Your task to perform on an android device: change timer sound Image 0: 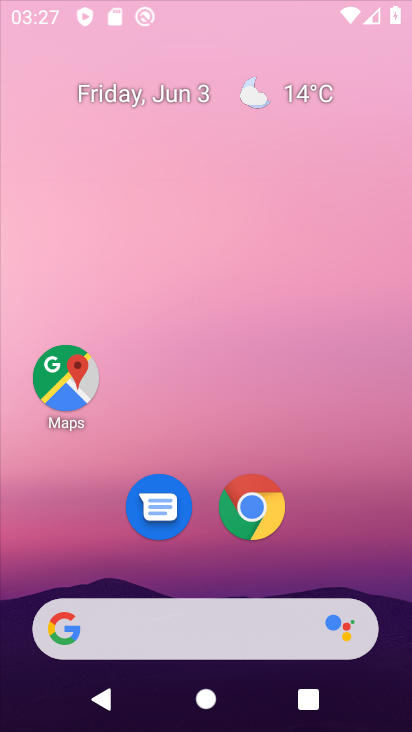
Step 0: press home button
Your task to perform on an android device: change timer sound Image 1: 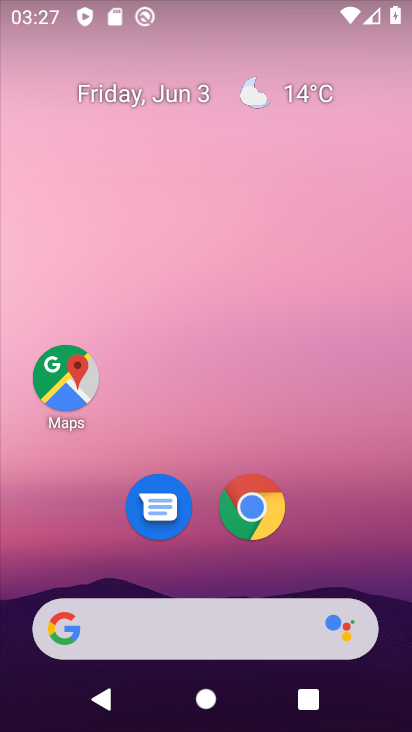
Step 1: drag from (225, 583) to (232, 28)
Your task to perform on an android device: change timer sound Image 2: 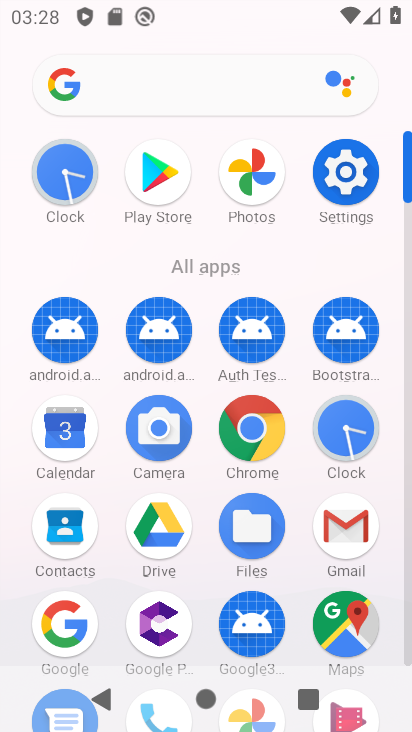
Step 2: click (50, 168)
Your task to perform on an android device: change timer sound Image 3: 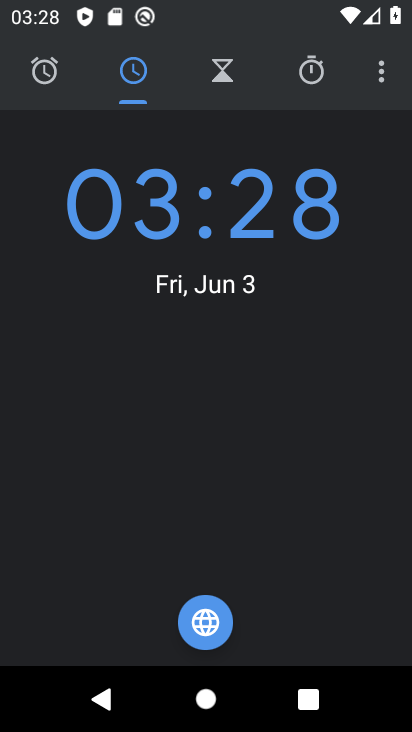
Step 3: click (383, 77)
Your task to perform on an android device: change timer sound Image 4: 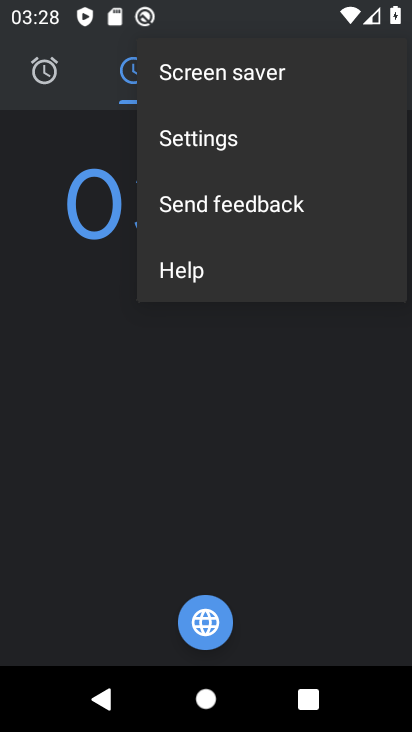
Step 4: click (209, 140)
Your task to perform on an android device: change timer sound Image 5: 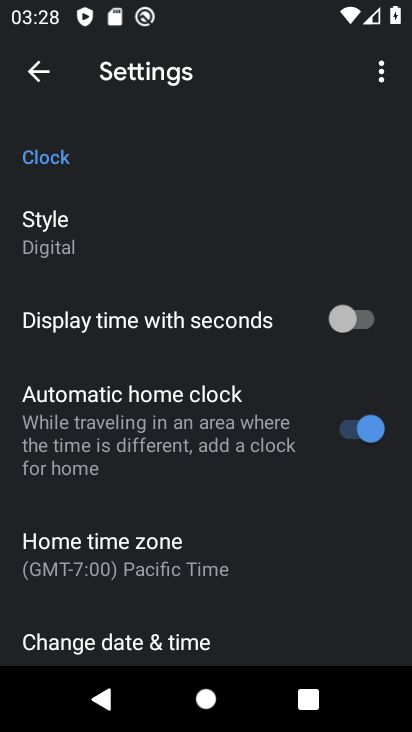
Step 5: drag from (301, 539) to (323, 105)
Your task to perform on an android device: change timer sound Image 6: 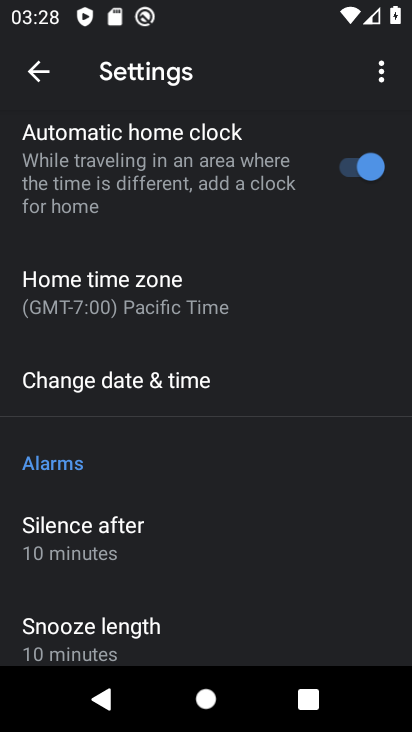
Step 6: drag from (244, 585) to (257, 238)
Your task to perform on an android device: change timer sound Image 7: 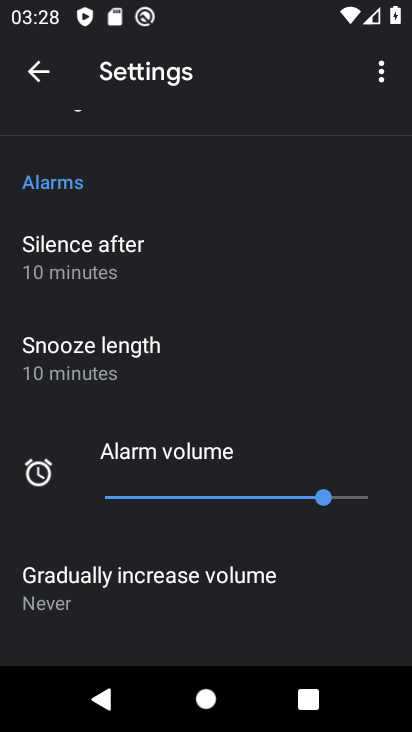
Step 7: drag from (267, 585) to (284, 207)
Your task to perform on an android device: change timer sound Image 8: 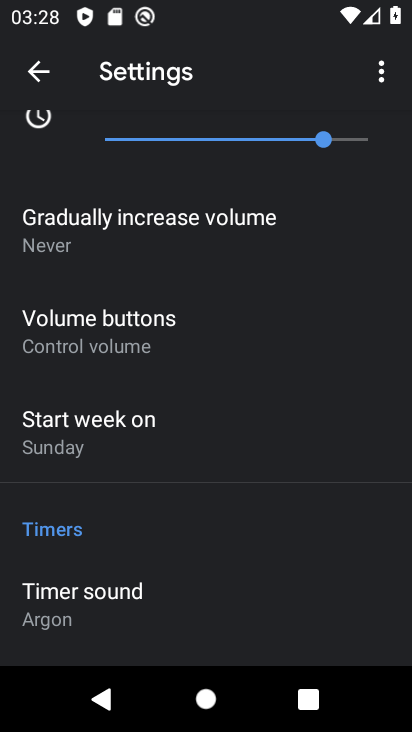
Step 8: click (85, 598)
Your task to perform on an android device: change timer sound Image 9: 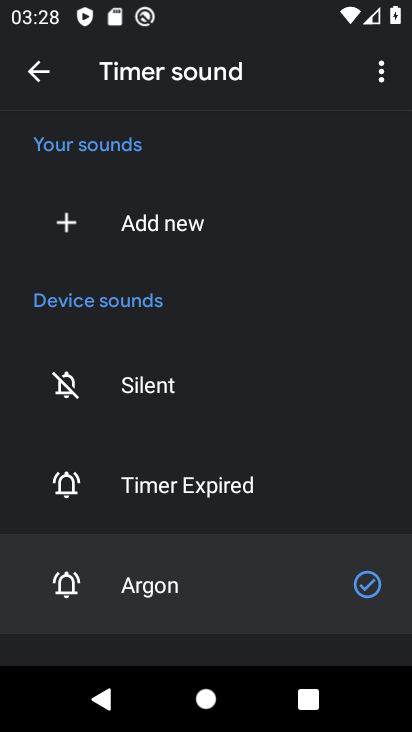
Step 9: click (198, 586)
Your task to perform on an android device: change timer sound Image 10: 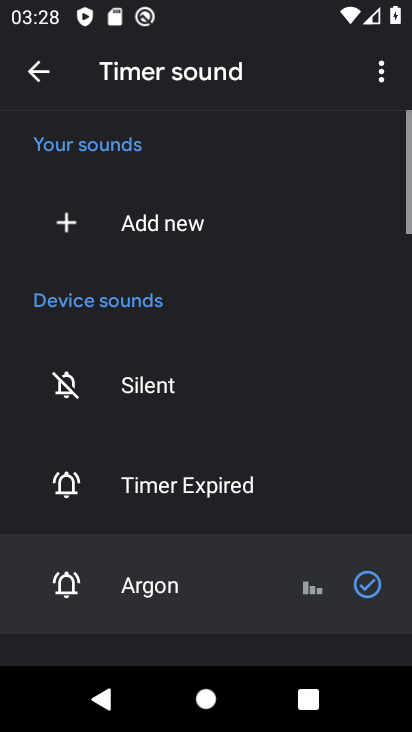
Step 10: click (196, 587)
Your task to perform on an android device: change timer sound Image 11: 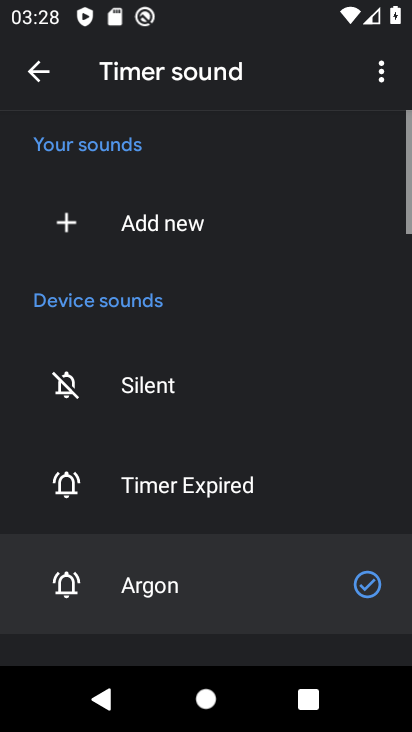
Step 11: drag from (219, 527) to (219, 181)
Your task to perform on an android device: change timer sound Image 12: 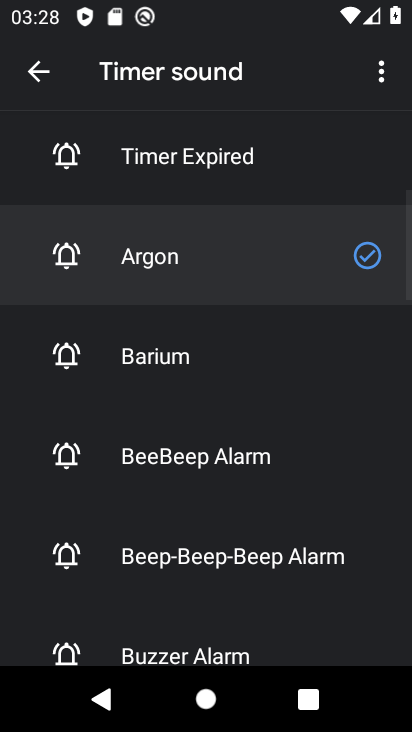
Step 12: click (168, 357)
Your task to perform on an android device: change timer sound Image 13: 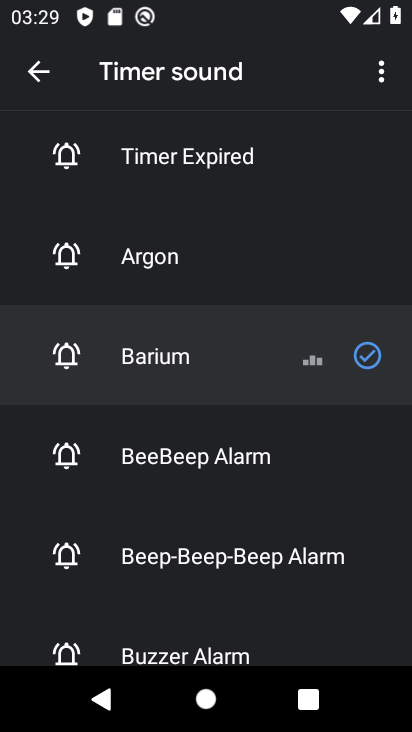
Step 13: task complete